Your task to perform on an android device: Open sound settings Image 0: 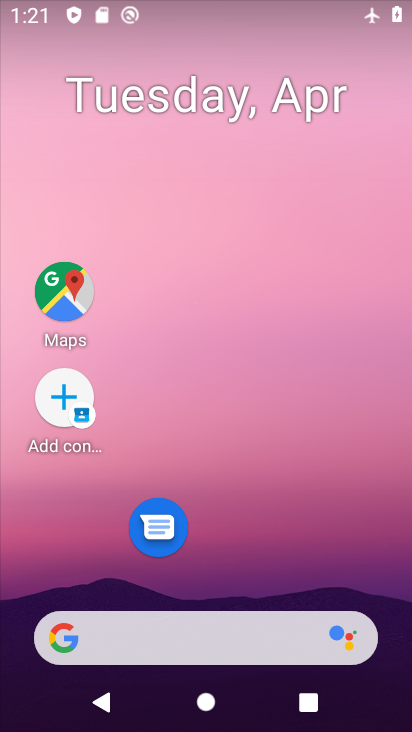
Step 0: drag from (255, 586) to (279, 117)
Your task to perform on an android device: Open sound settings Image 1: 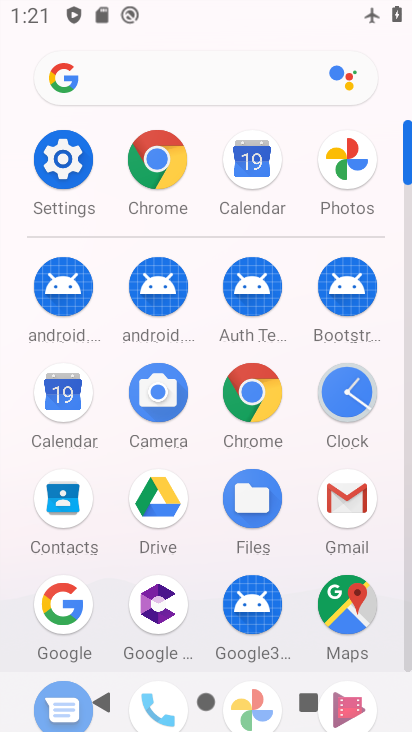
Step 1: click (64, 163)
Your task to perform on an android device: Open sound settings Image 2: 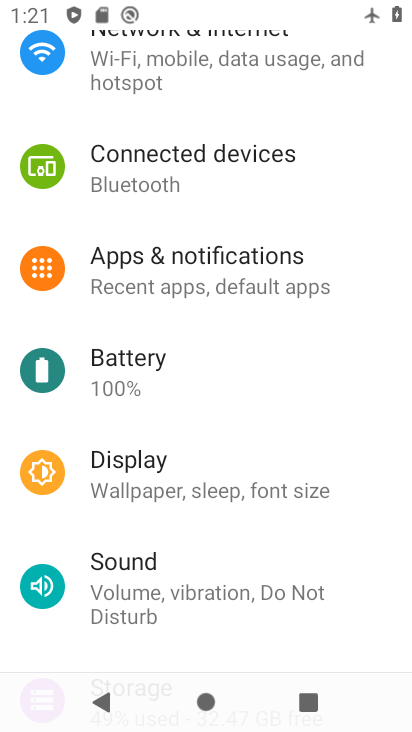
Step 2: click (180, 590)
Your task to perform on an android device: Open sound settings Image 3: 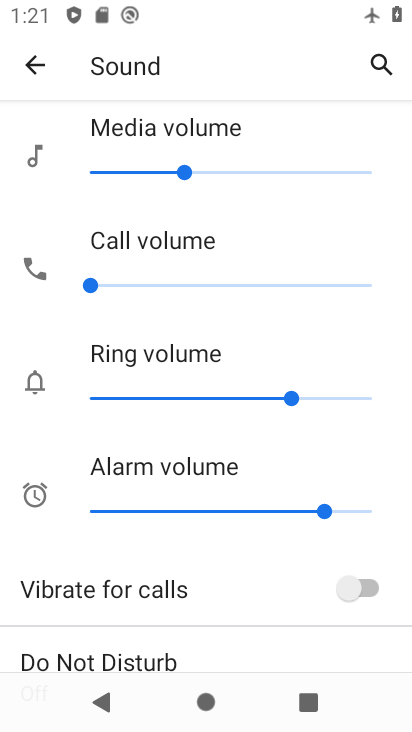
Step 3: task complete